Your task to perform on an android device: check data usage Image 0: 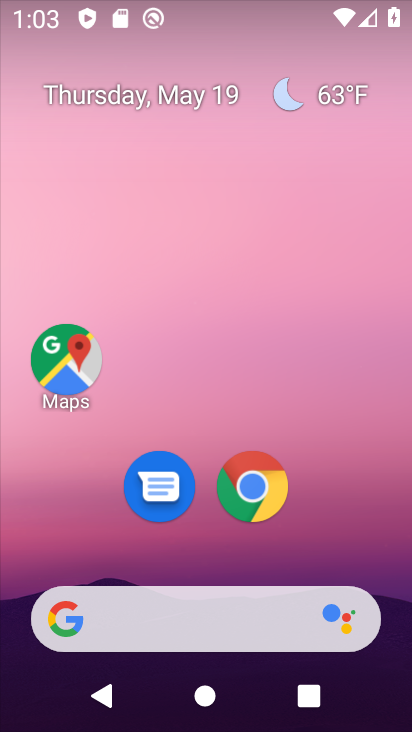
Step 0: drag from (334, 570) to (197, 61)
Your task to perform on an android device: check data usage Image 1: 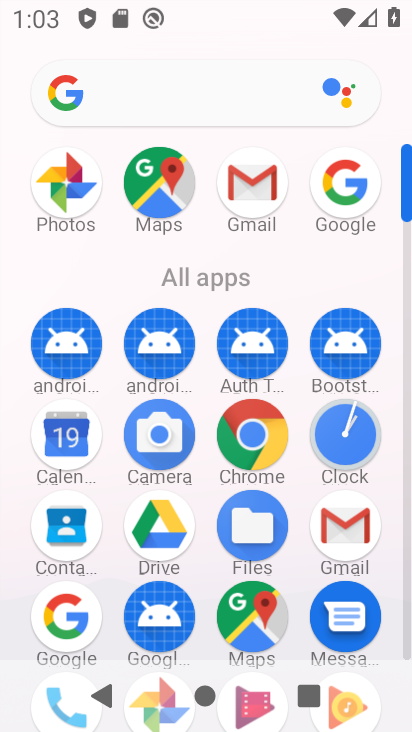
Step 1: drag from (210, 606) to (201, 238)
Your task to perform on an android device: check data usage Image 2: 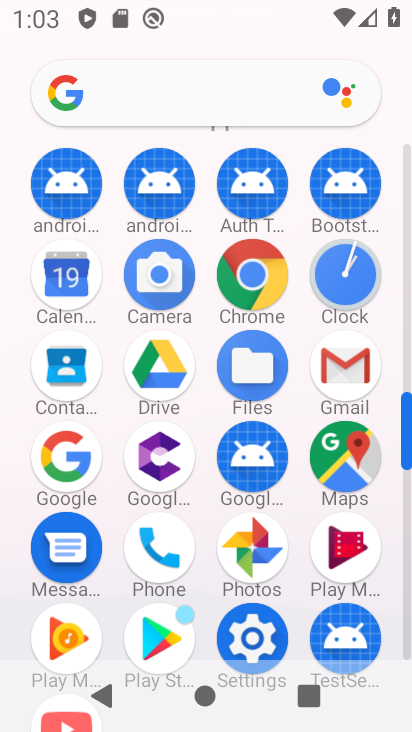
Step 2: click (263, 634)
Your task to perform on an android device: check data usage Image 3: 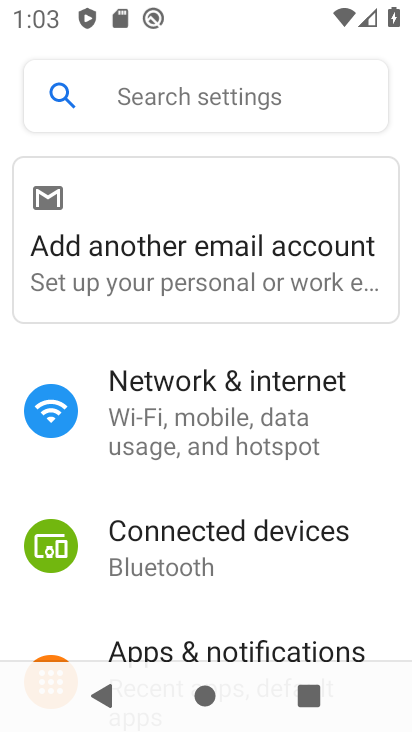
Step 3: click (223, 400)
Your task to perform on an android device: check data usage Image 4: 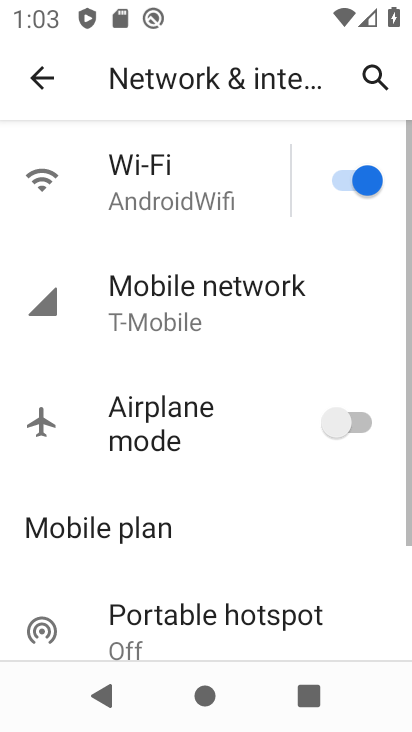
Step 4: click (210, 309)
Your task to perform on an android device: check data usage Image 5: 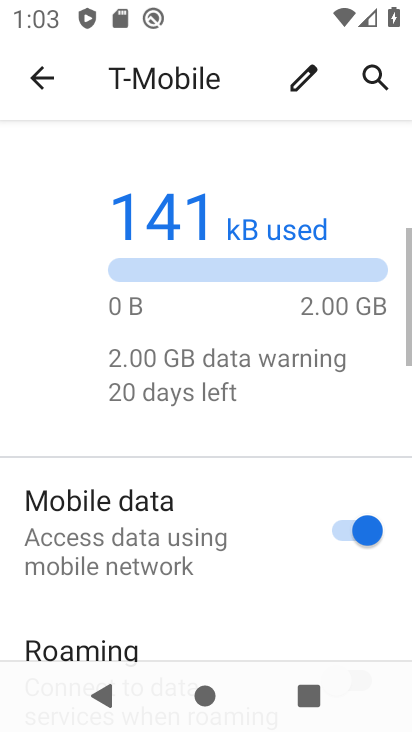
Step 5: task complete